Your task to perform on an android device: open chrome and create a bookmark for the current page Image 0: 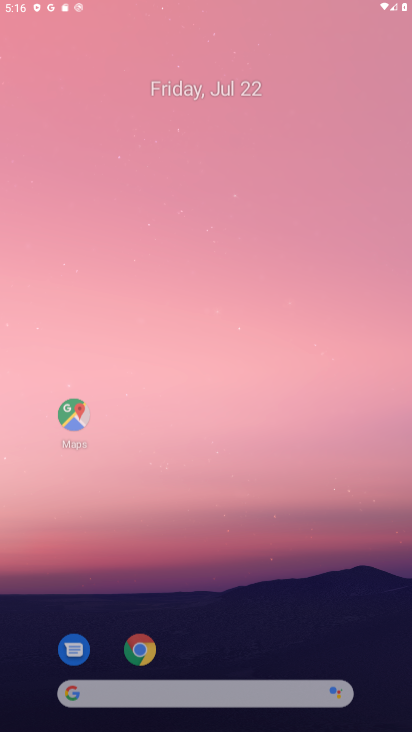
Step 0: press home button
Your task to perform on an android device: open chrome and create a bookmark for the current page Image 1: 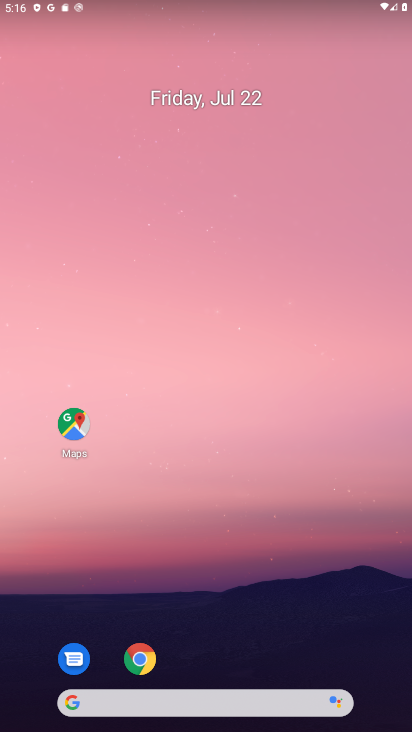
Step 1: drag from (219, 643) to (232, 112)
Your task to perform on an android device: open chrome and create a bookmark for the current page Image 2: 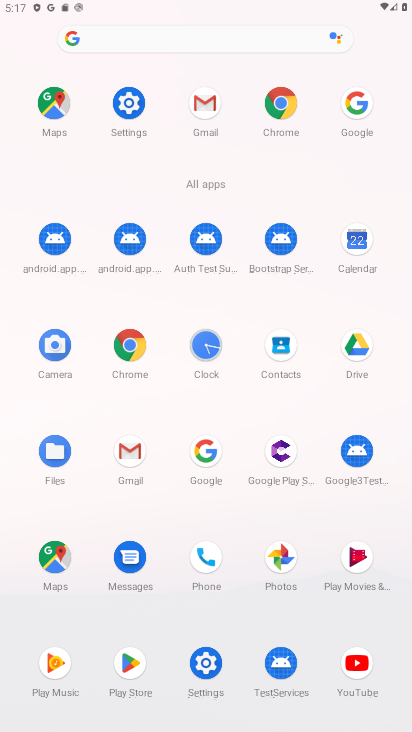
Step 2: click (131, 341)
Your task to perform on an android device: open chrome and create a bookmark for the current page Image 3: 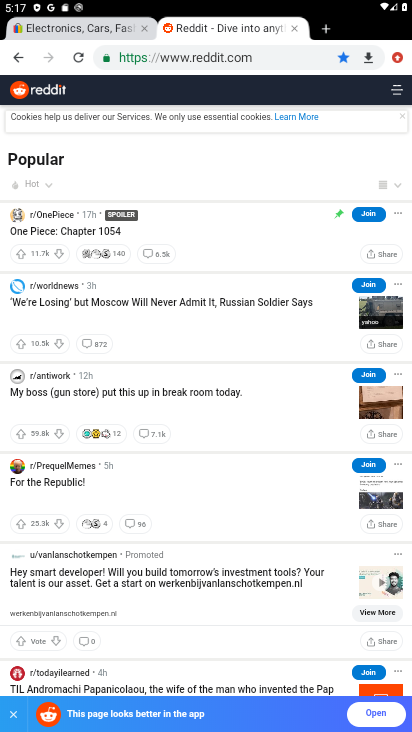
Step 3: task complete